Your task to perform on an android device: see tabs open on other devices in the chrome app Image 0: 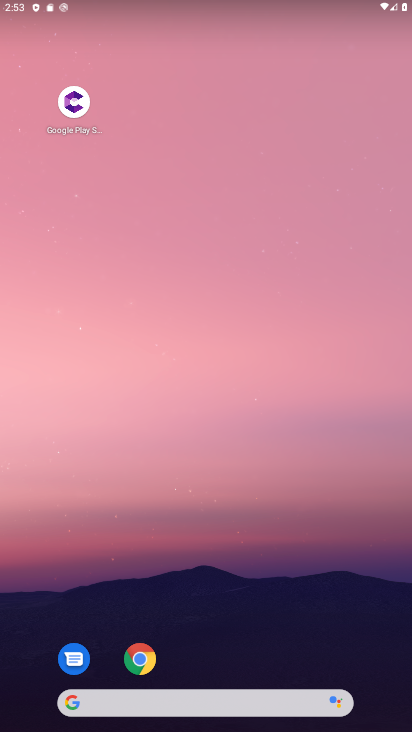
Step 0: click (145, 646)
Your task to perform on an android device: see tabs open on other devices in the chrome app Image 1: 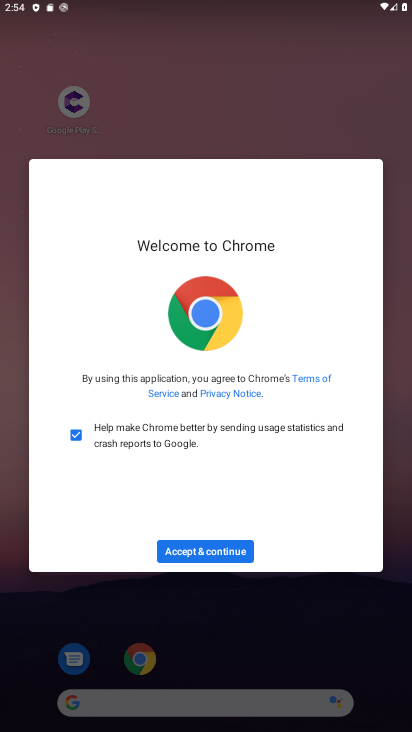
Step 1: click (235, 557)
Your task to perform on an android device: see tabs open on other devices in the chrome app Image 2: 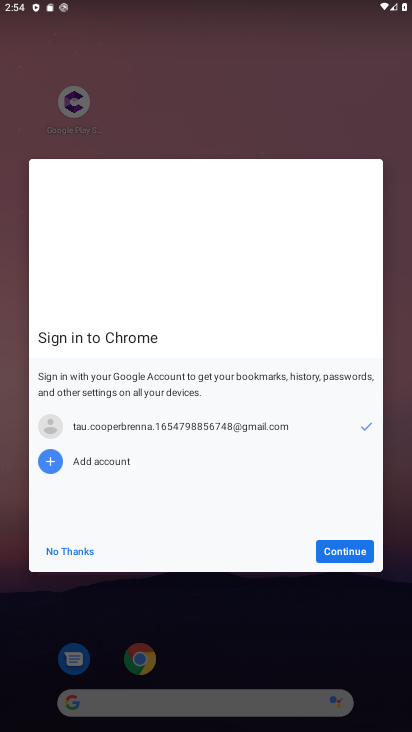
Step 2: click (352, 547)
Your task to perform on an android device: see tabs open on other devices in the chrome app Image 3: 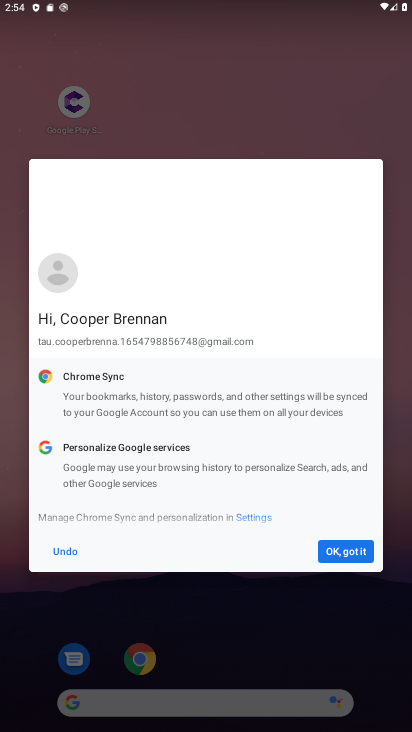
Step 3: click (334, 548)
Your task to perform on an android device: see tabs open on other devices in the chrome app Image 4: 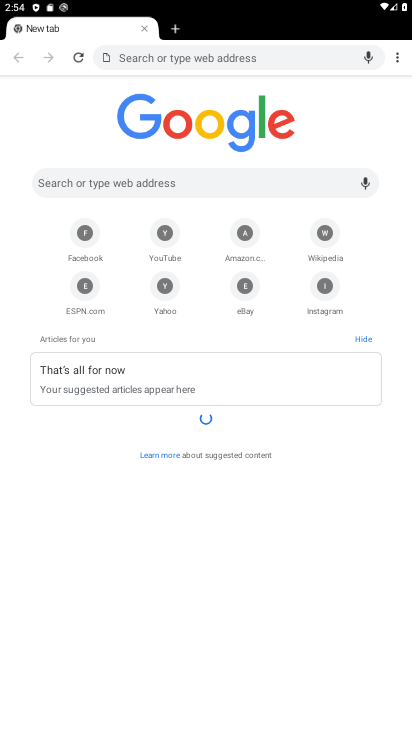
Step 4: click (397, 57)
Your task to perform on an android device: see tabs open on other devices in the chrome app Image 5: 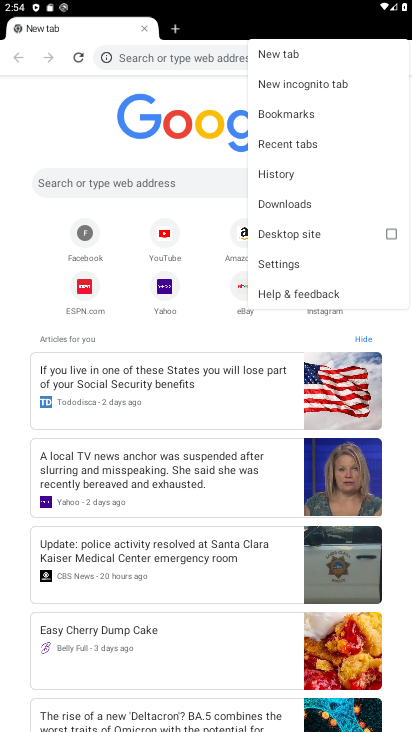
Step 5: click (297, 141)
Your task to perform on an android device: see tabs open on other devices in the chrome app Image 6: 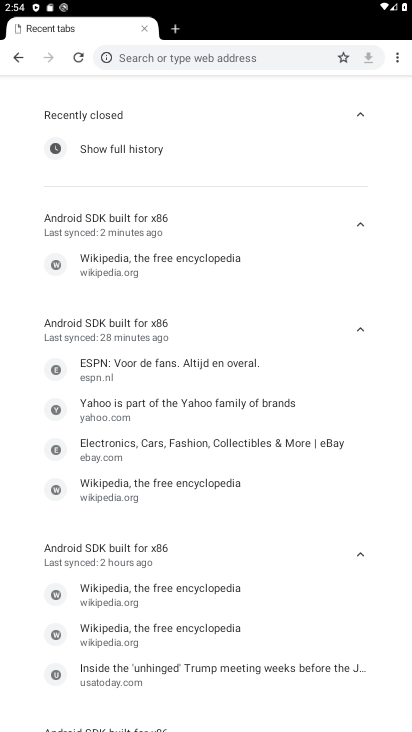
Step 6: task complete